Your task to perform on an android device: Set the phone to "Do not disturb". Image 0: 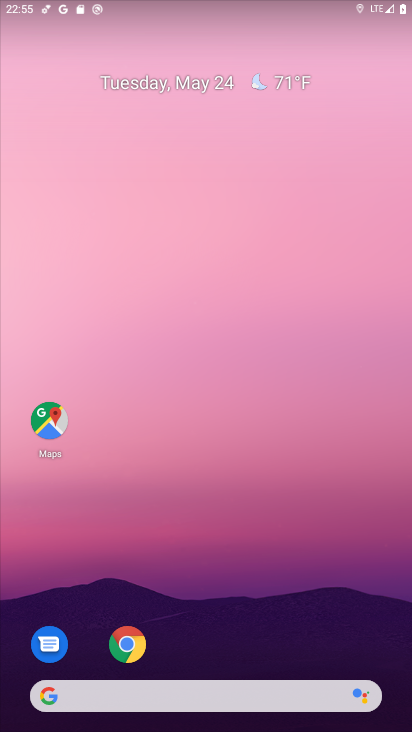
Step 0: drag from (214, 565) to (159, 42)
Your task to perform on an android device: Set the phone to "Do not disturb". Image 1: 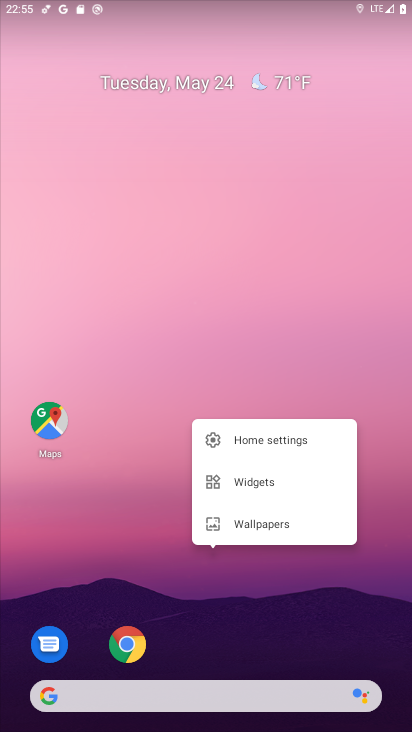
Step 1: click (133, 364)
Your task to perform on an android device: Set the phone to "Do not disturb". Image 2: 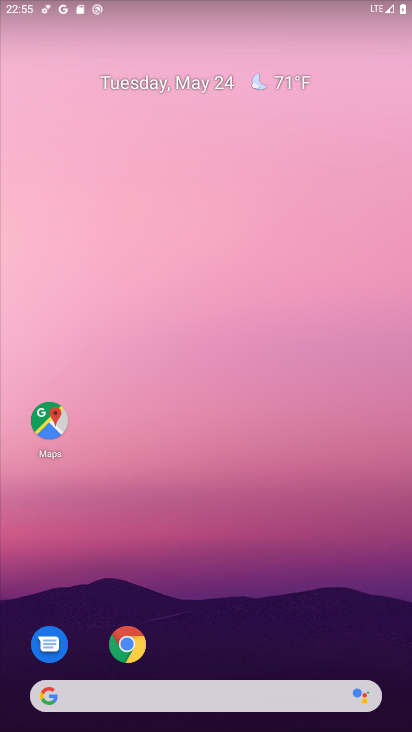
Step 2: drag from (215, 609) to (213, 202)
Your task to perform on an android device: Set the phone to "Do not disturb". Image 3: 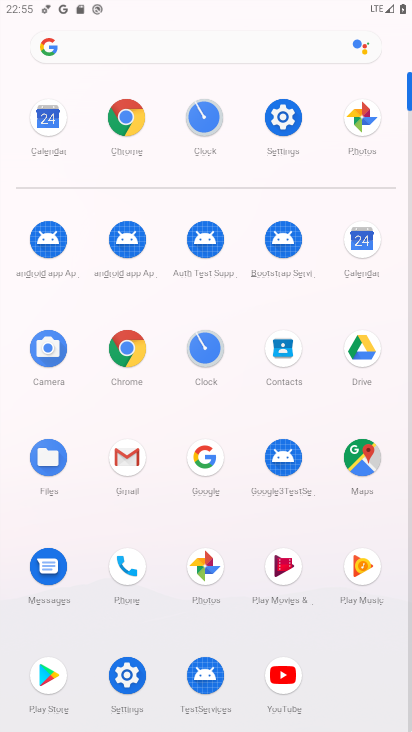
Step 3: click (279, 112)
Your task to perform on an android device: Set the phone to "Do not disturb". Image 4: 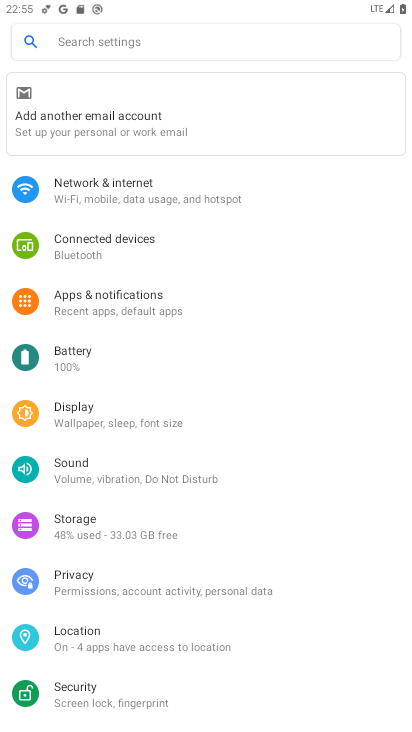
Step 4: click (75, 469)
Your task to perform on an android device: Set the phone to "Do not disturb". Image 5: 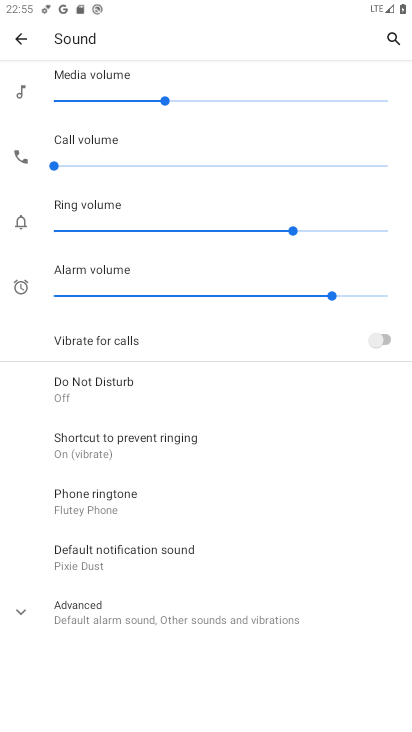
Step 5: click (92, 387)
Your task to perform on an android device: Set the phone to "Do not disturb". Image 6: 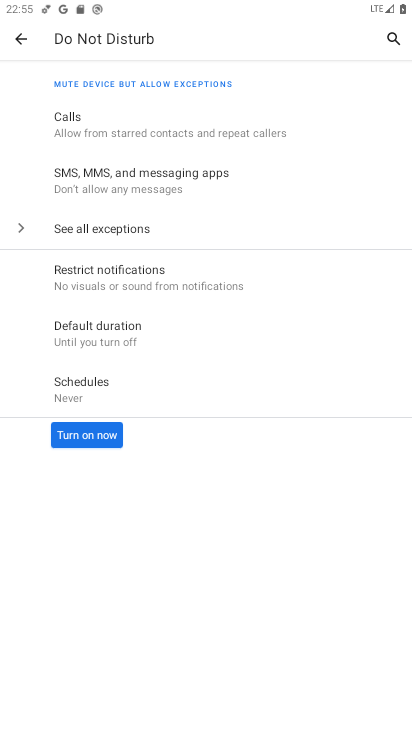
Step 6: click (77, 437)
Your task to perform on an android device: Set the phone to "Do not disturb". Image 7: 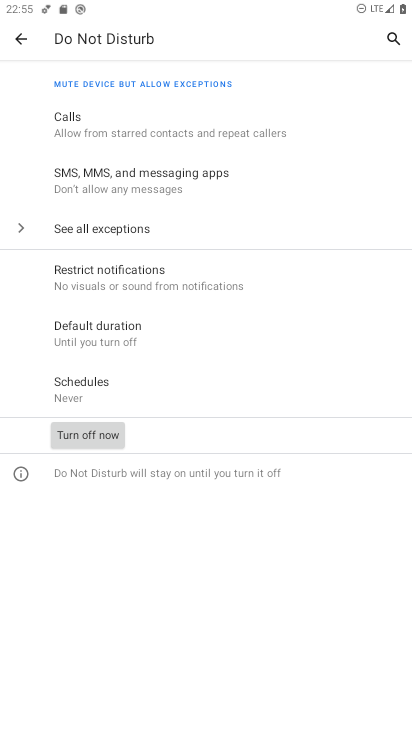
Step 7: task complete